Your task to perform on an android device: Clear the cart on walmart.com. Image 0: 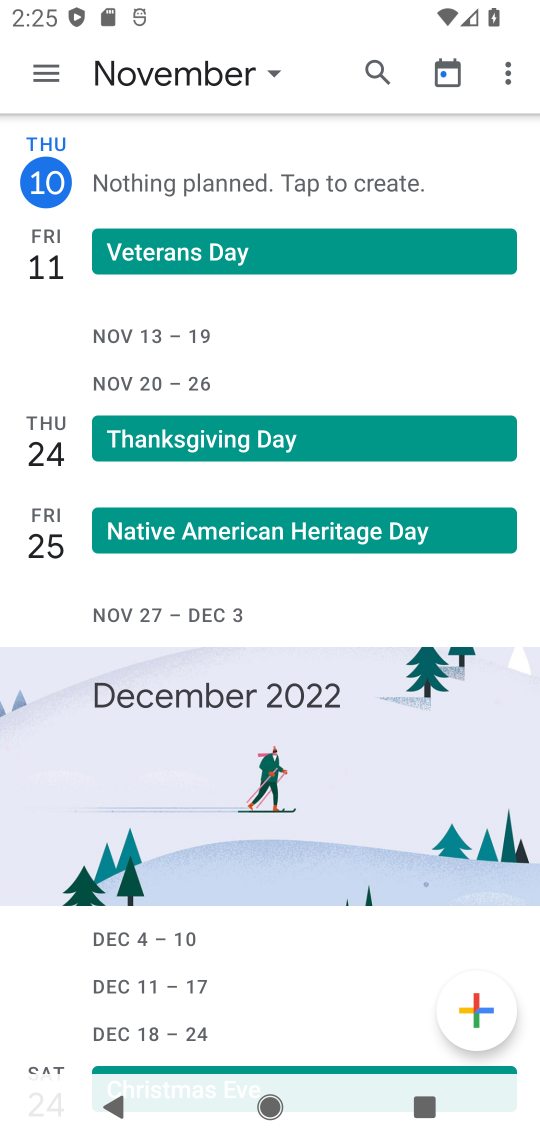
Step 0: press home button
Your task to perform on an android device: Clear the cart on walmart.com. Image 1: 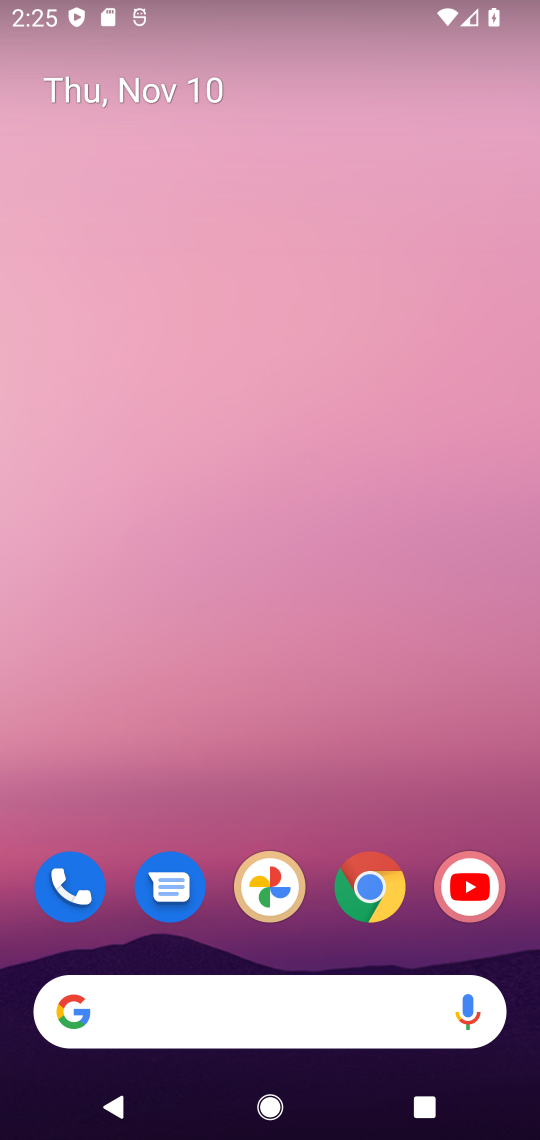
Step 1: drag from (334, 404) to (350, 40)
Your task to perform on an android device: Clear the cart on walmart.com. Image 2: 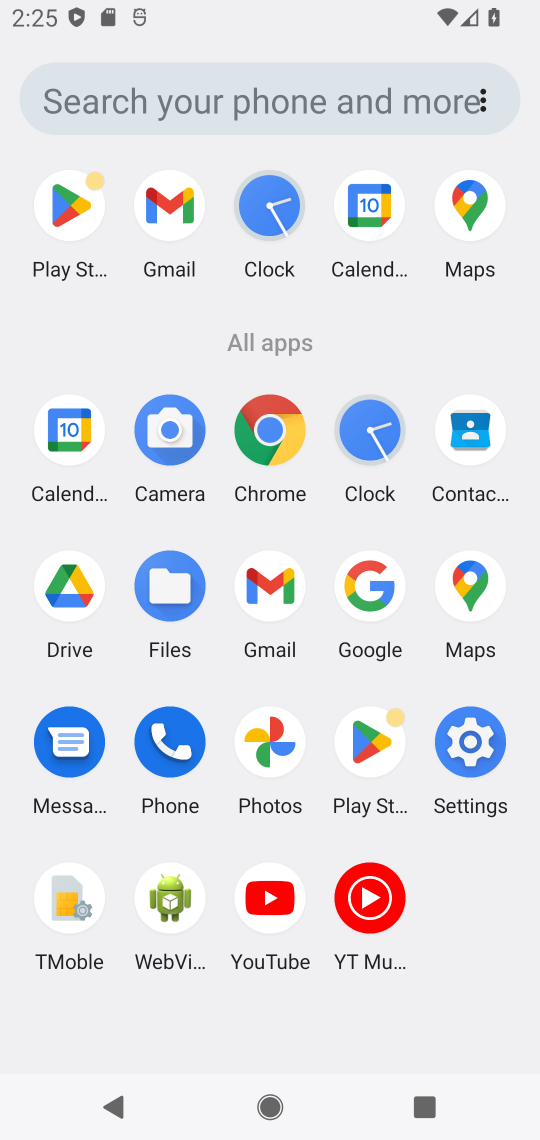
Step 2: click (260, 441)
Your task to perform on an android device: Clear the cart on walmart.com. Image 3: 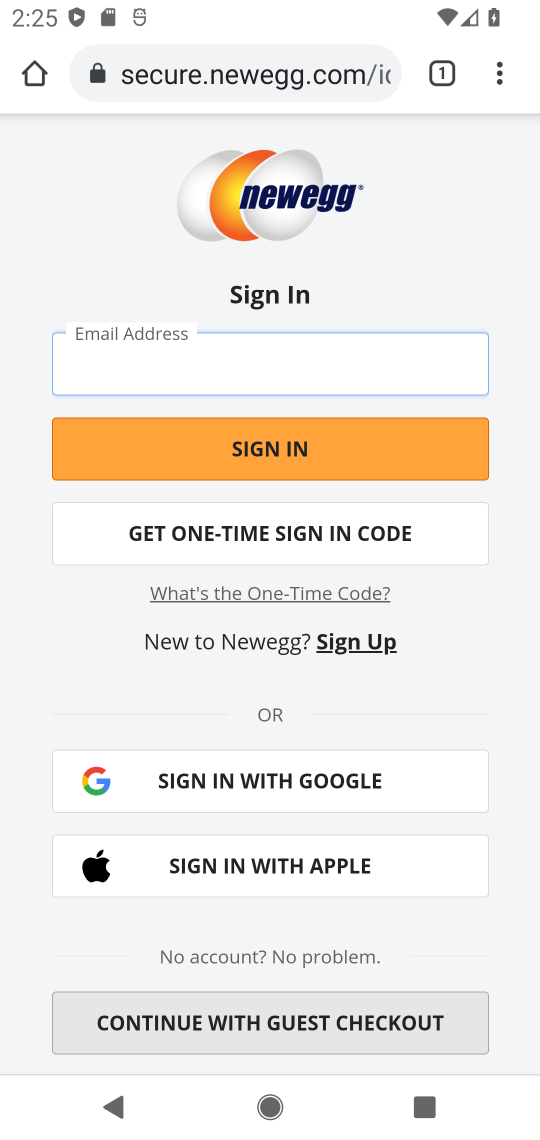
Step 3: click (328, 63)
Your task to perform on an android device: Clear the cart on walmart.com. Image 4: 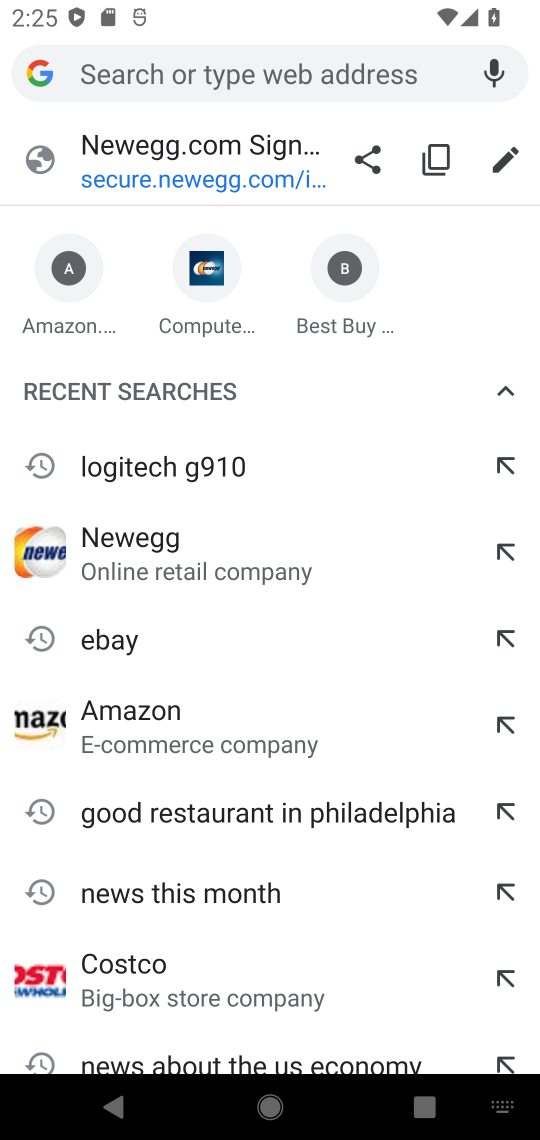
Step 4: type "walmart.com"
Your task to perform on an android device: Clear the cart on walmart.com. Image 5: 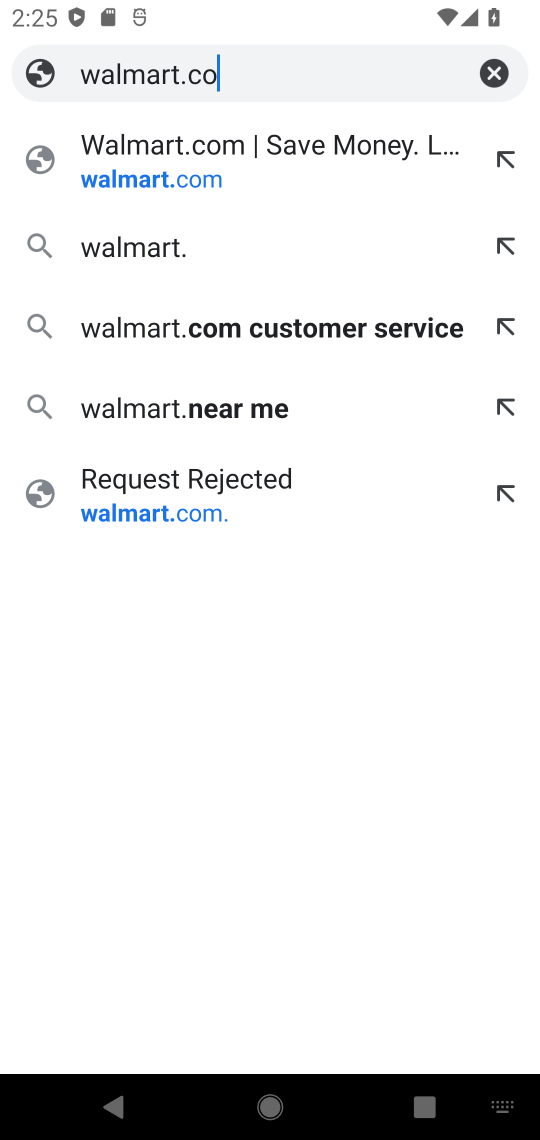
Step 5: press enter
Your task to perform on an android device: Clear the cart on walmart.com. Image 6: 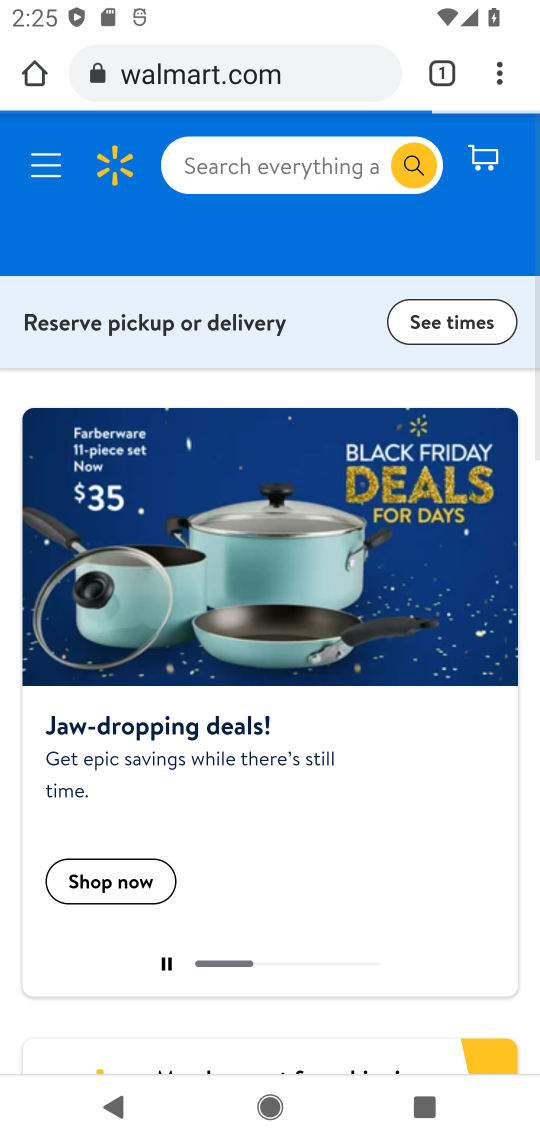
Step 6: click (489, 166)
Your task to perform on an android device: Clear the cart on walmart.com. Image 7: 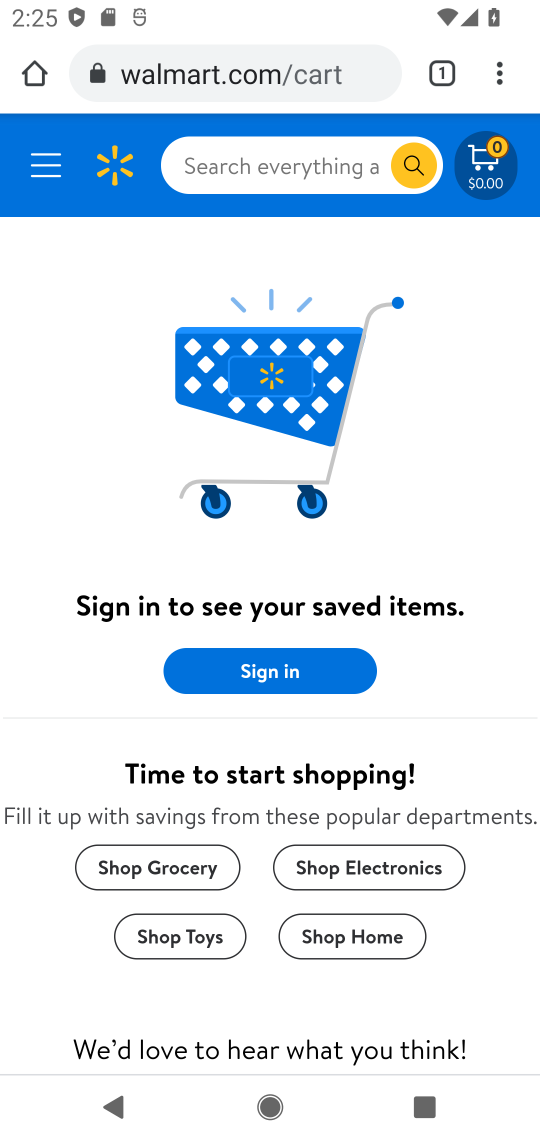
Step 7: task complete